Your task to perform on an android device: check android version Image 0: 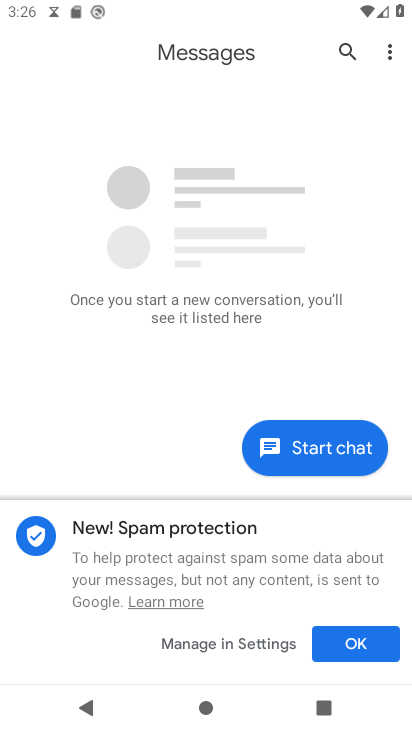
Step 0: press back button
Your task to perform on an android device: check android version Image 1: 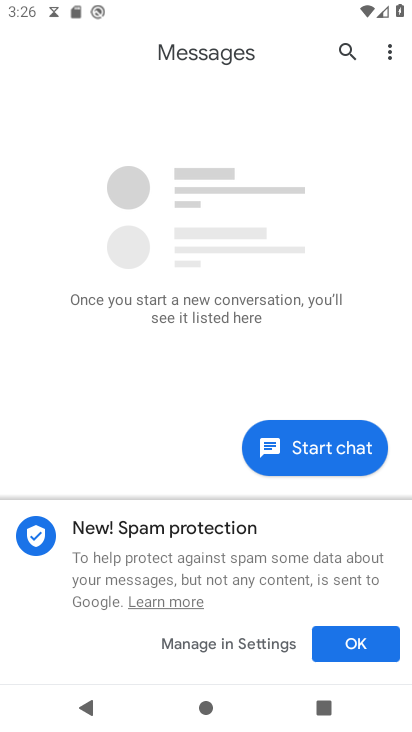
Step 1: press back button
Your task to perform on an android device: check android version Image 2: 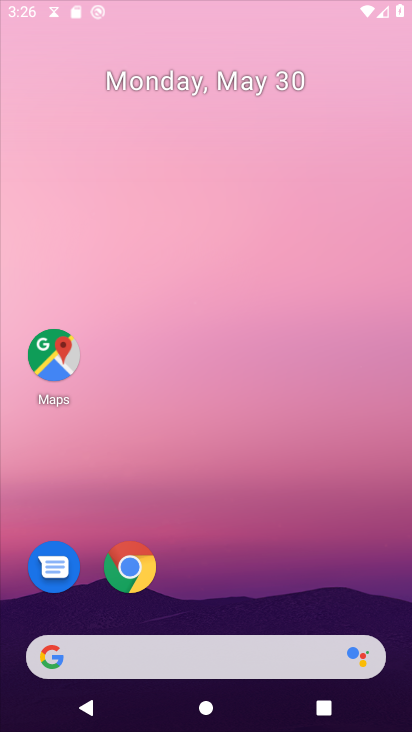
Step 2: press back button
Your task to perform on an android device: check android version Image 3: 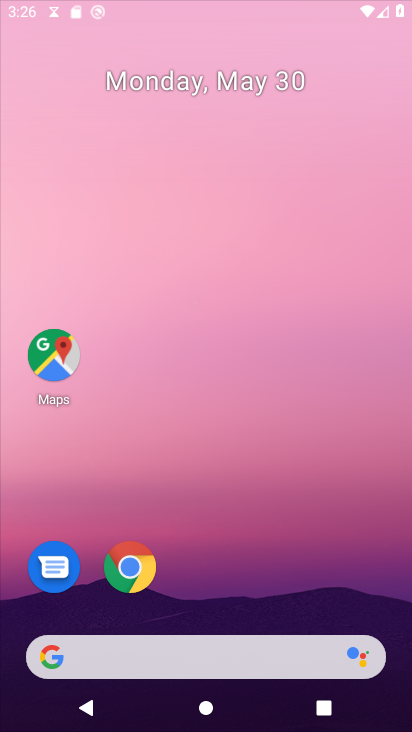
Step 3: press home button
Your task to perform on an android device: check android version Image 4: 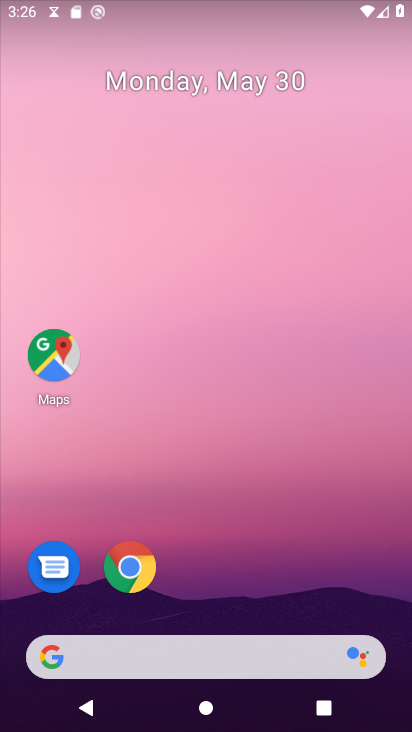
Step 4: press home button
Your task to perform on an android device: check android version Image 5: 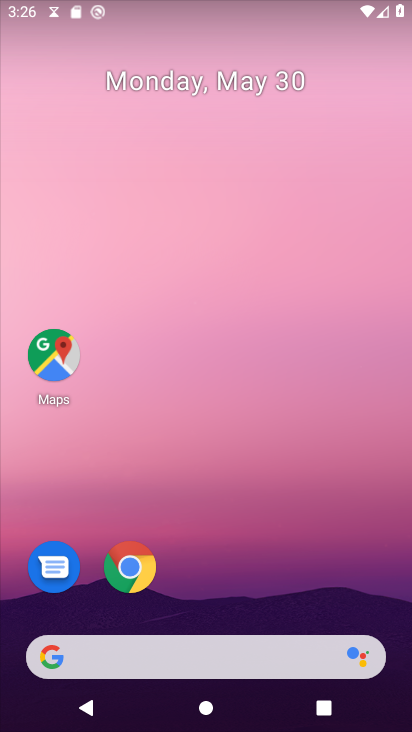
Step 5: click (126, 18)
Your task to perform on an android device: check android version Image 6: 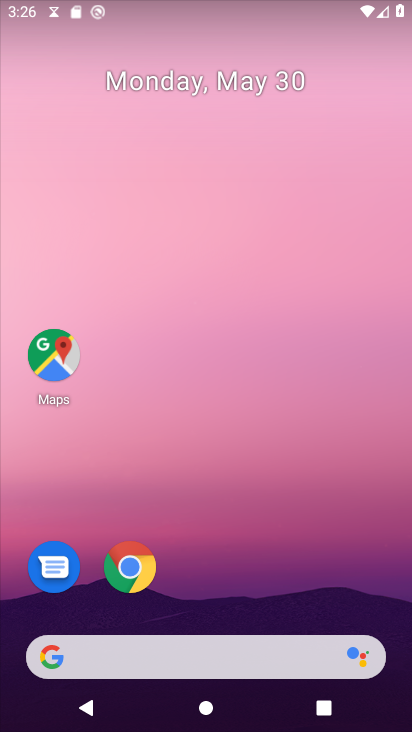
Step 6: drag from (297, 685) to (151, 45)
Your task to perform on an android device: check android version Image 7: 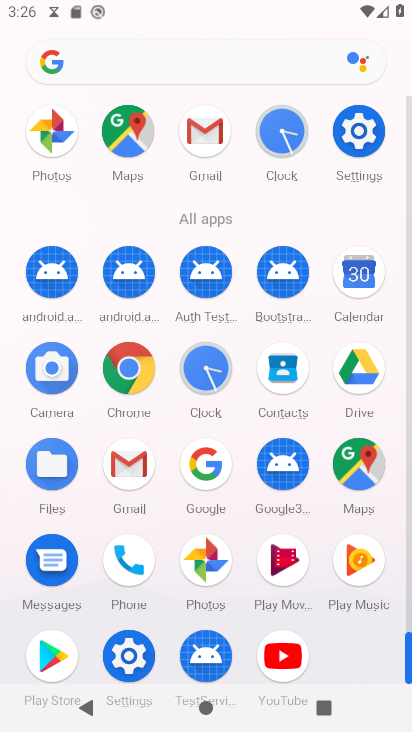
Step 7: click (121, 371)
Your task to perform on an android device: check android version Image 8: 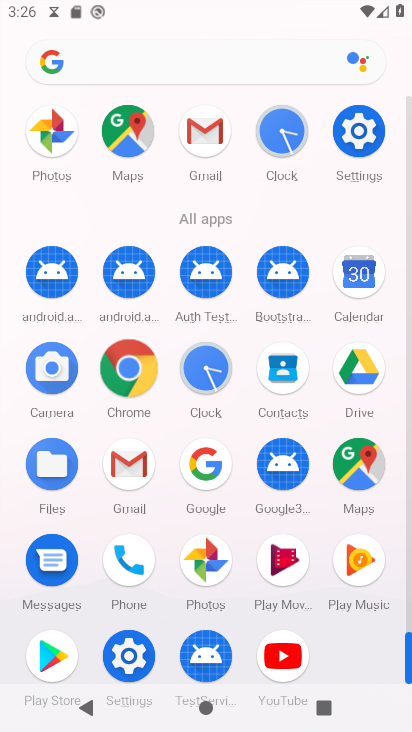
Step 8: click (139, 366)
Your task to perform on an android device: check android version Image 9: 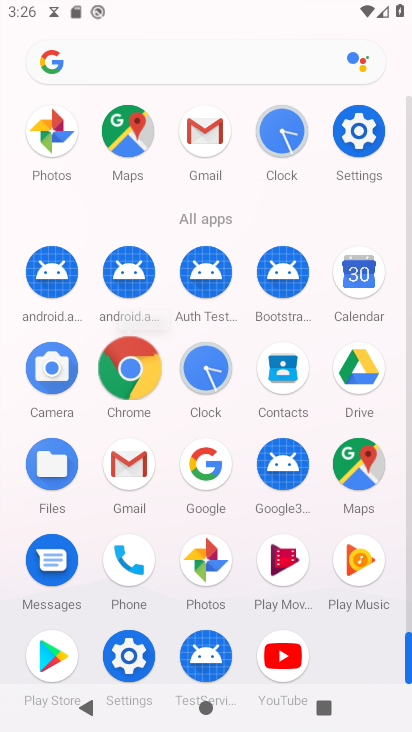
Step 9: click (139, 366)
Your task to perform on an android device: check android version Image 10: 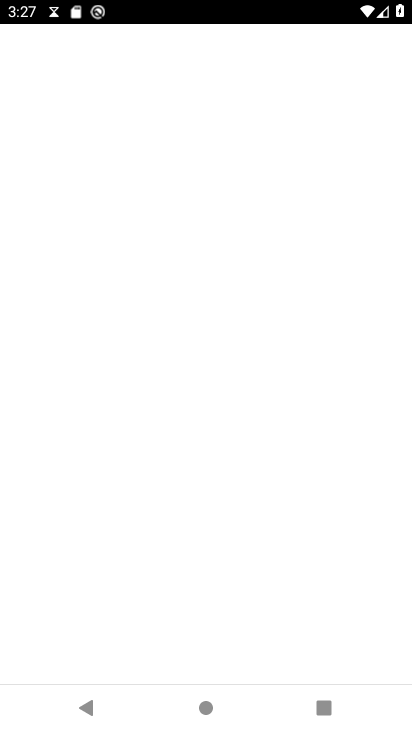
Step 10: drag from (130, 419) to (100, 50)
Your task to perform on an android device: check android version Image 11: 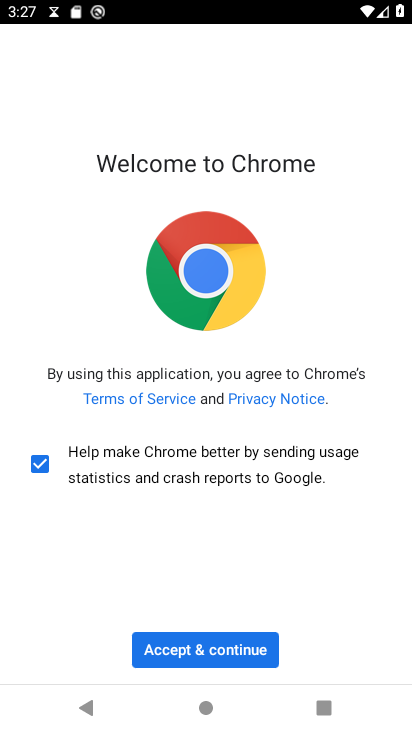
Step 11: drag from (244, 625) to (155, 120)
Your task to perform on an android device: check android version Image 12: 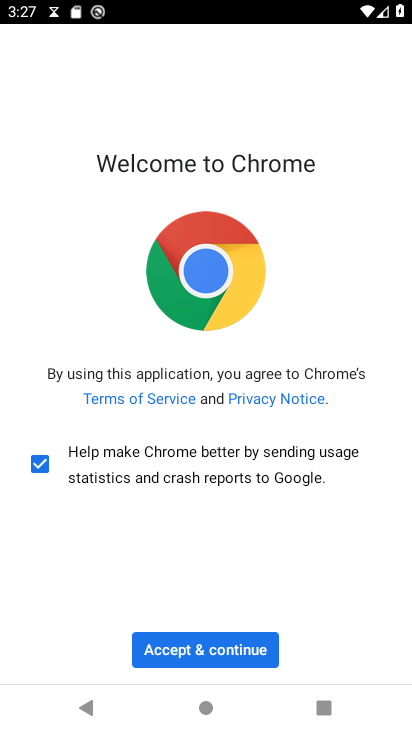
Step 12: click (230, 648)
Your task to perform on an android device: check android version Image 13: 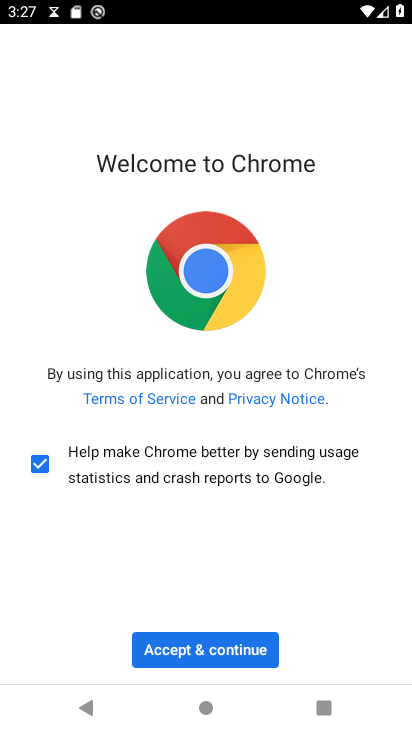
Step 13: click (230, 648)
Your task to perform on an android device: check android version Image 14: 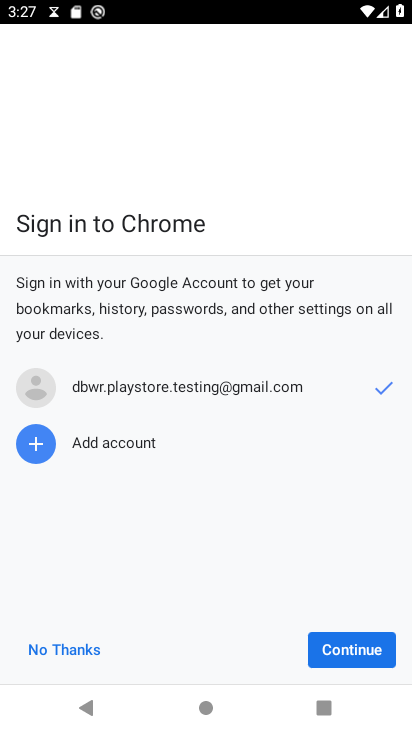
Step 14: click (231, 651)
Your task to perform on an android device: check android version Image 15: 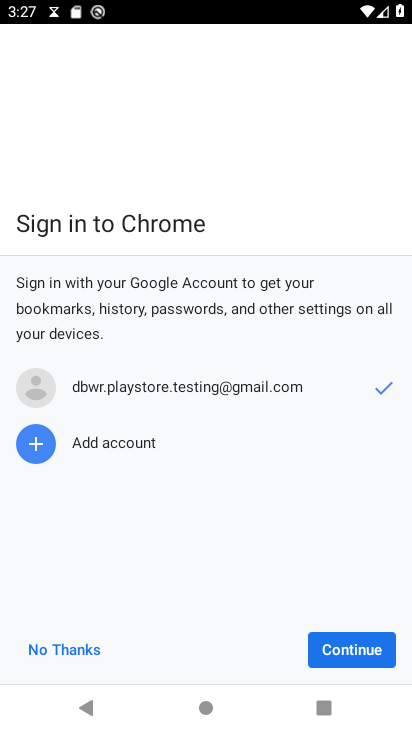
Step 15: click (345, 652)
Your task to perform on an android device: check android version Image 16: 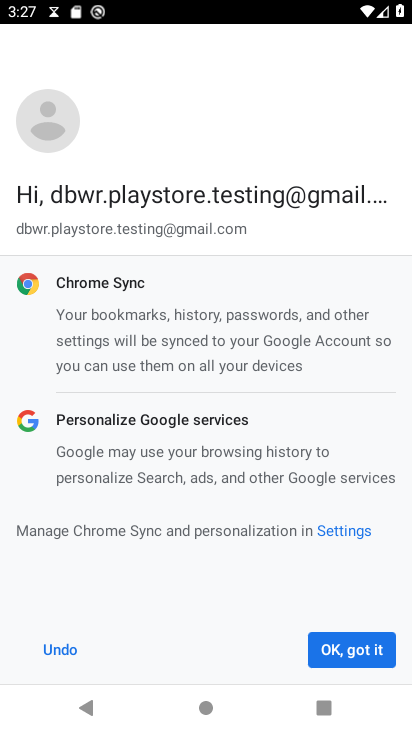
Step 16: click (347, 653)
Your task to perform on an android device: check android version Image 17: 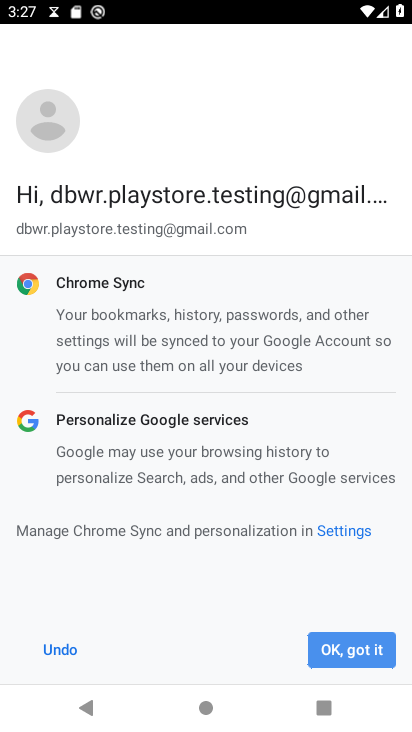
Step 17: click (350, 655)
Your task to perform on an android device: check android version Image 18: 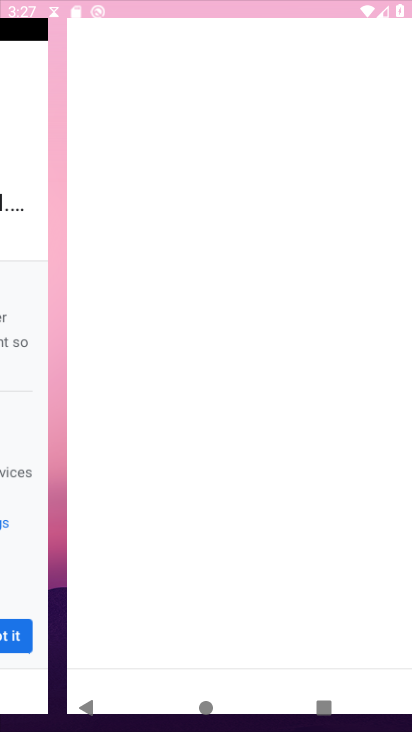
Step 18: click (357, 660)
Your task to perform on an android device: check android version Image 19: 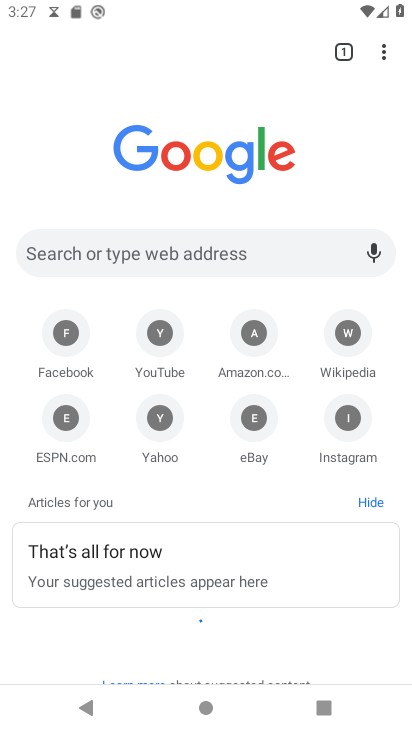
Step 19: drag from (193, 433) to (196, 327)
Your task to perform on an android device: check android version Image 20: 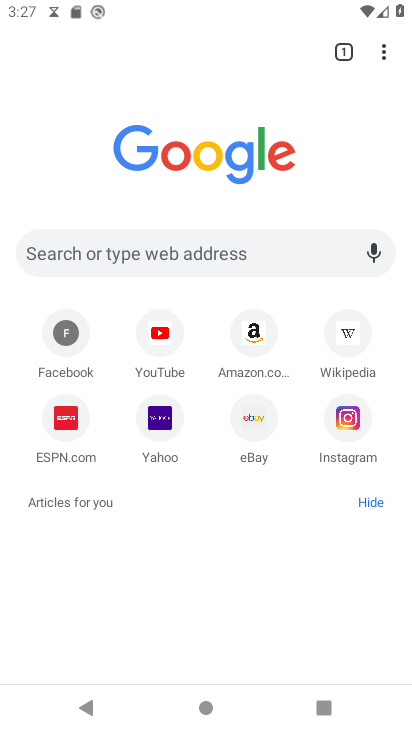
Step 20: press home button
Your task to perform on an android device: check android version Image 21: 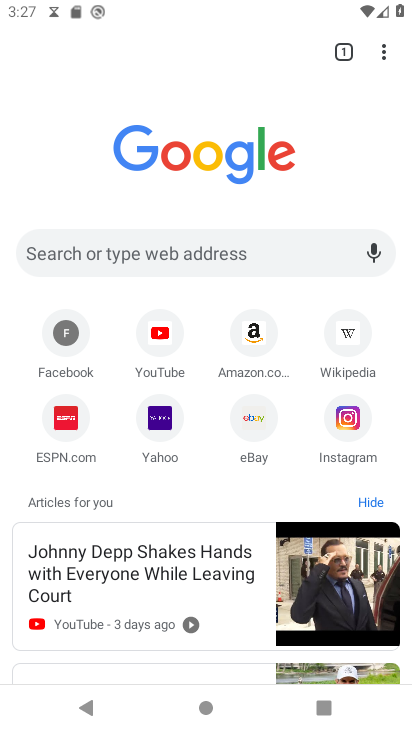
Step 21: press home button
Your task to perform on an android device: check android version Image 22: 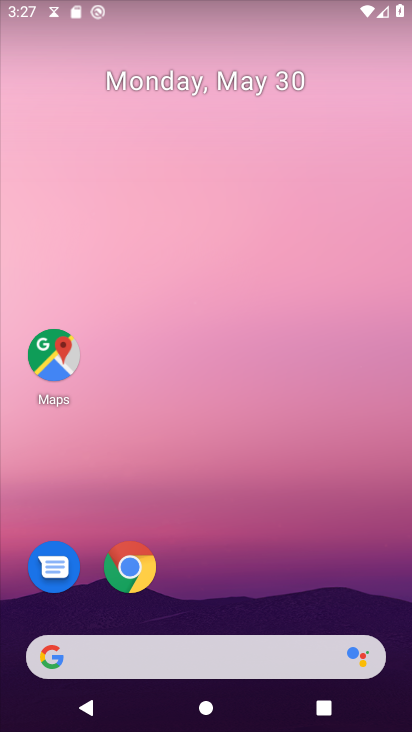
Step 22: press home button
Your task to perform on an android device: check android version Image 23: 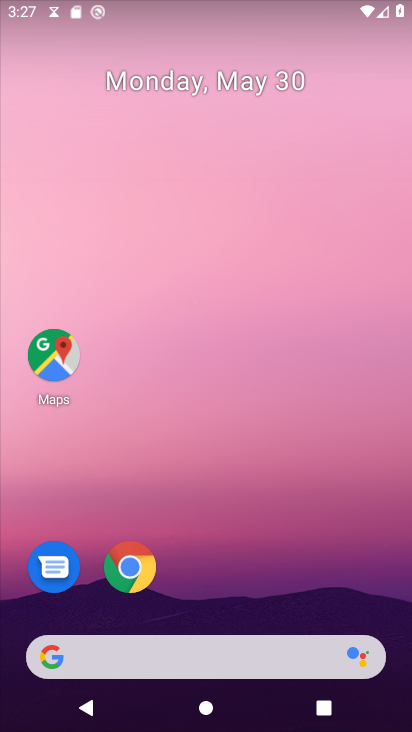
Step 23: press back button
Your task to perform on an android device: check android version Image 24: 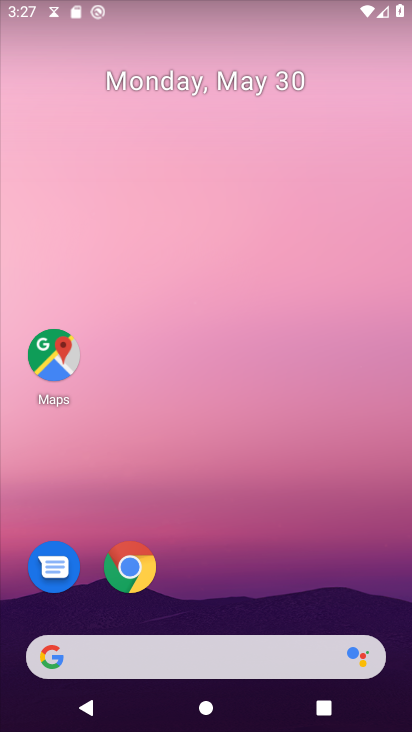
Step 24: drag from (250, 560) to (98, 0)
Your task to perform on an android device: check android version Image 25: 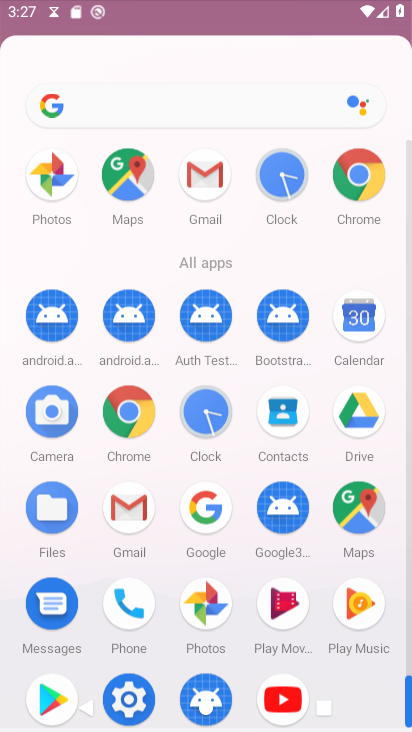
Step 25: drag from (231, 400) to (112, 40)
Your task to perform on an android device: check android version Image 26: 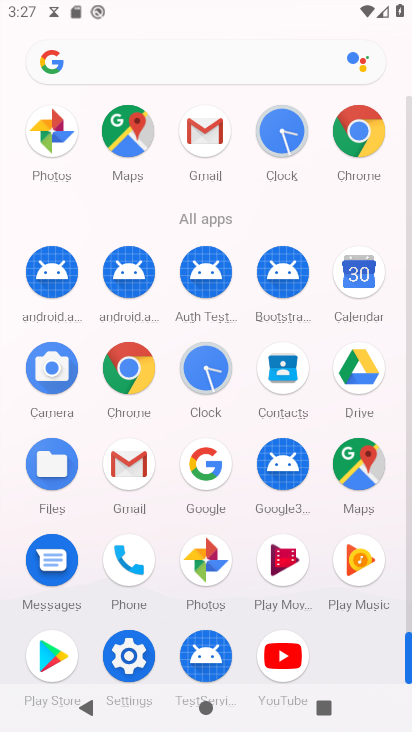
Step 26: click (130, 652)
Your task to perform on an android device: check android version Image 27: 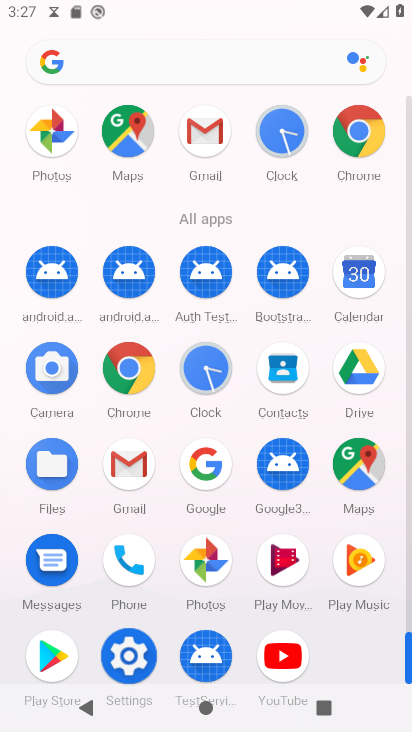
Step 27: click (130, 652)
Your task to perform on an android device: check android version Image 28: 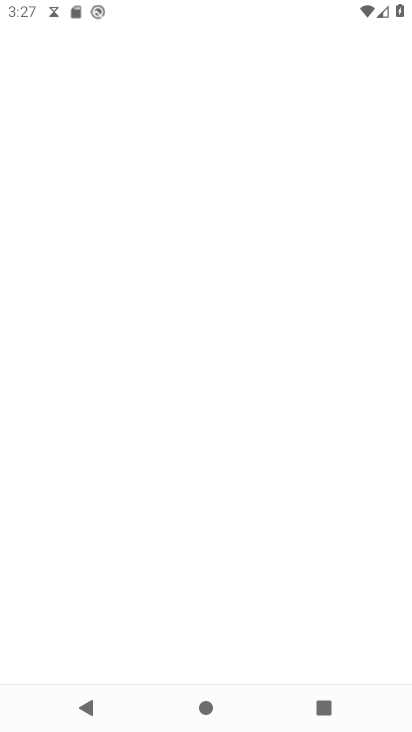
Step 28: click (116, 654)
Your task to perform on an android device: check android version Image 29: 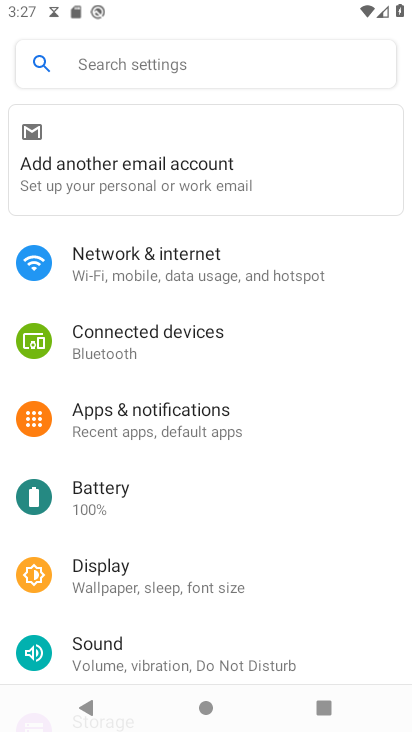
Step 29: drag from (115, 554) to (61, 77)
Your task to perform on an android device: check android version Image 30: 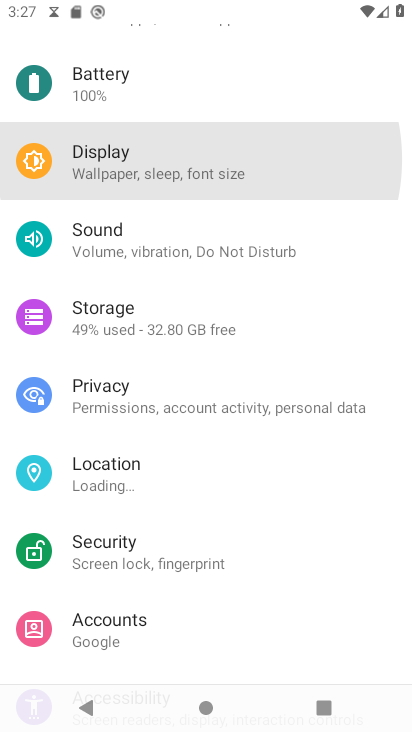
Step 30: drag from (154, 474) to (202, 141)
Your task to perform on an android device: check android version Image 31: 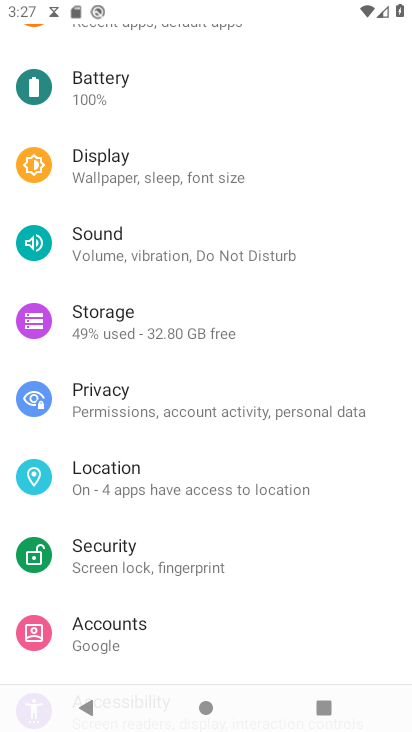
Step 31: drag from (210, 304) to (191, 38)
Your task to perform on an android device: check android version Image 32: 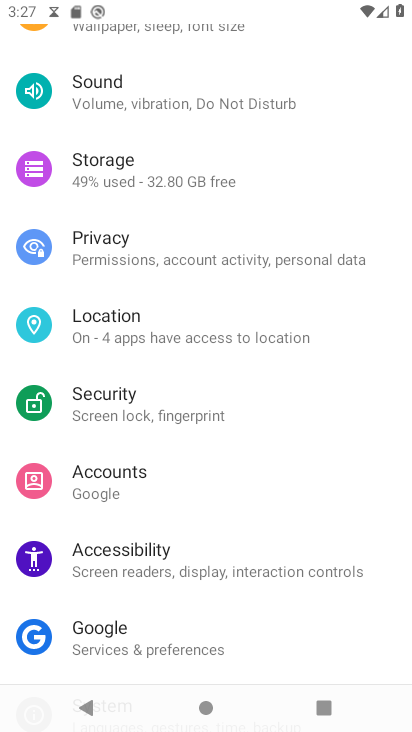
Step 32: drag from (194, 534) to (165, 116)
Your task to perform on an android device: check android version Image 33: 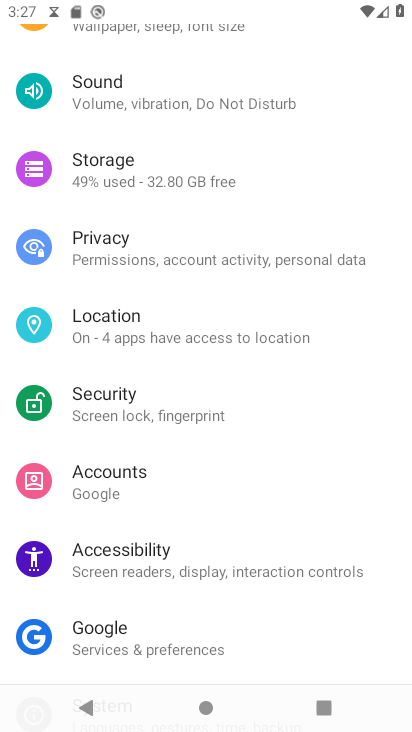
Step 33: drag from (158, 518) to (68, 8)
Your task to perform on an android device: check android version Image 34: 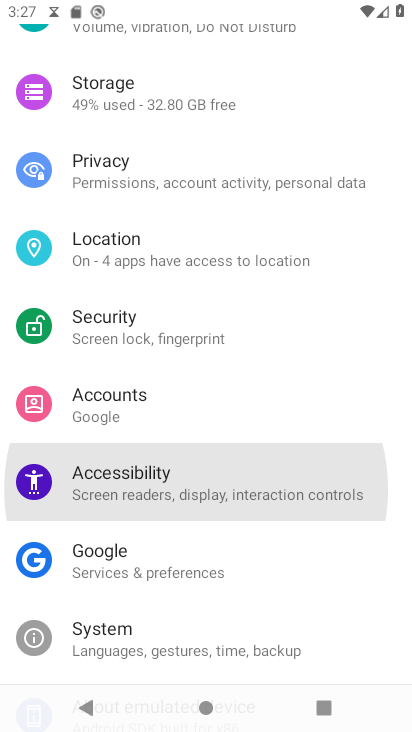
Step 34: drag from (80, 339) to (93, 26)
Your task to perform on an android device: check android version Image 35: 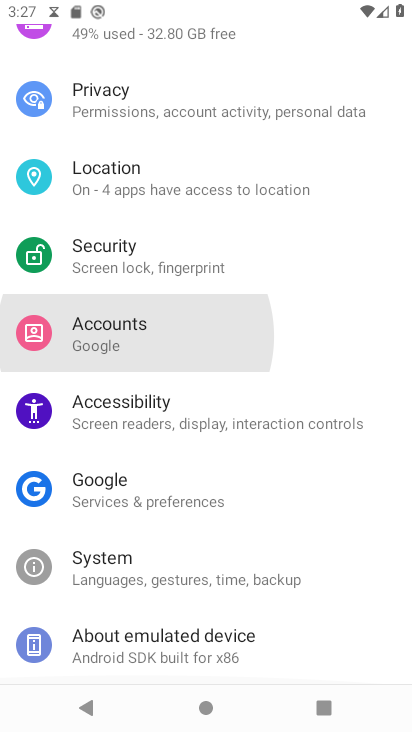
Step 35: drag from (198, 477) to (189, 135)
Your task to perform on an android device: check android version Image 36: 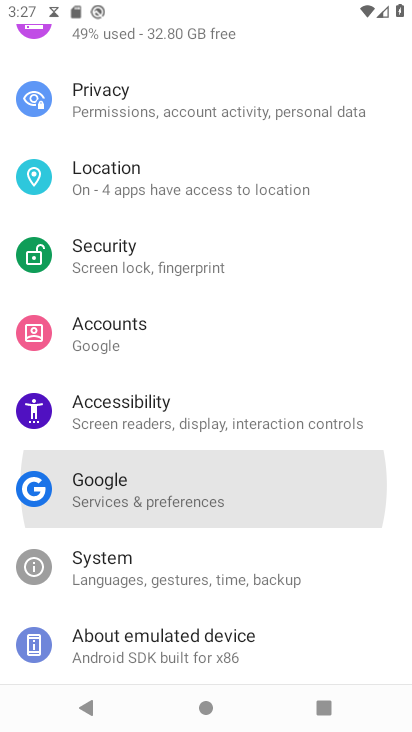
Step 36: drag from (186, 301) to (186, 179)
Your task to perform on an android device: check android version Image 37: 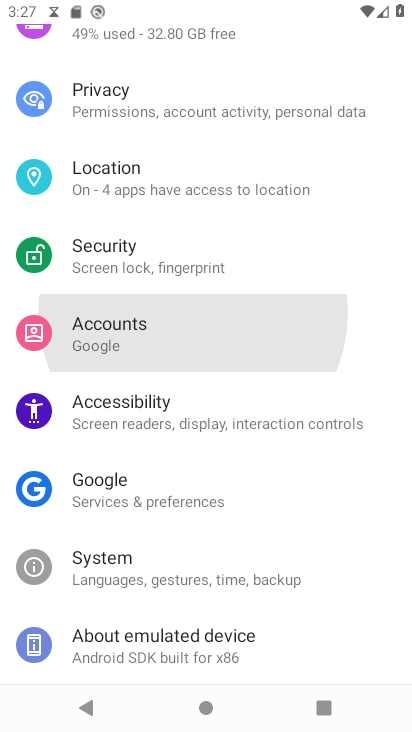
Step 37: click (173, 97)
Your task to perform on an android device: check android version Image 38: 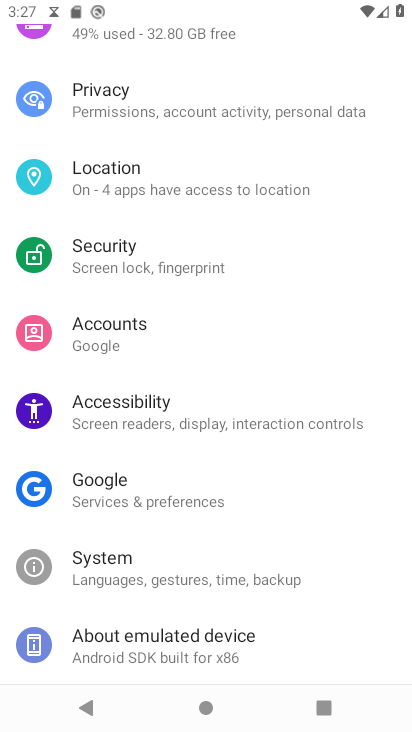
Step 38: click (163, 641)
Your task to perform on an android device: check android version Image 39: 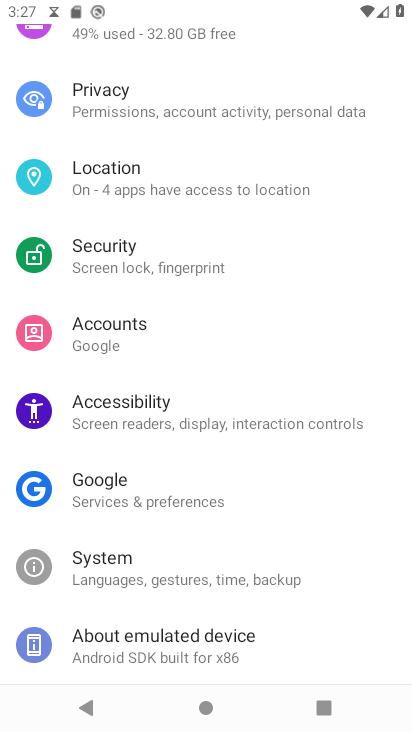
Step 39: click (163, 641)
Your task to perform on an android device: check android version Image 40: 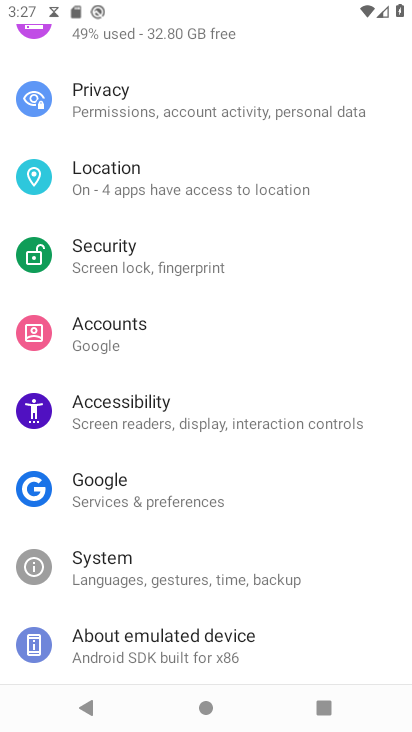
Step 40: click (163, 641)
Your task to perform on an android device: check android version Image 41: 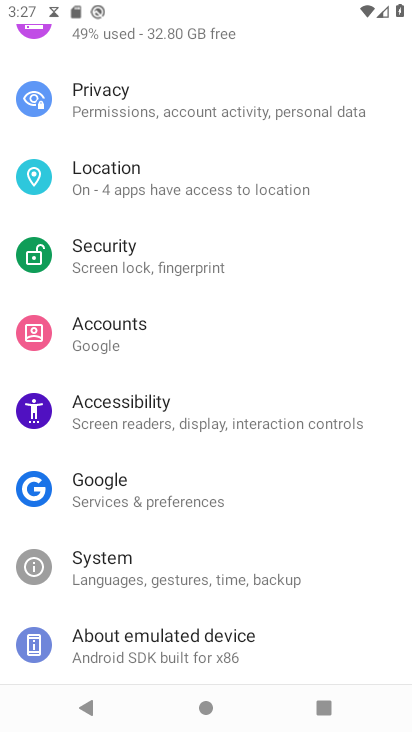
Step 41: click (163, 643)
Your task to perform on an android device: check android version Image 42: 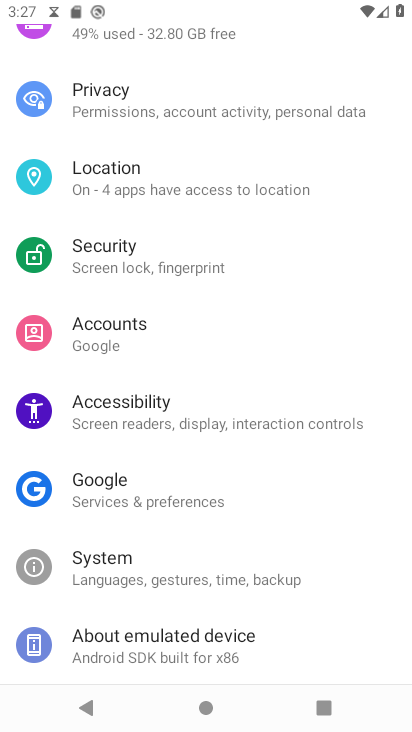
Step 42: click (163, 643)
Your task to perform on an android device: check android version Image 43: 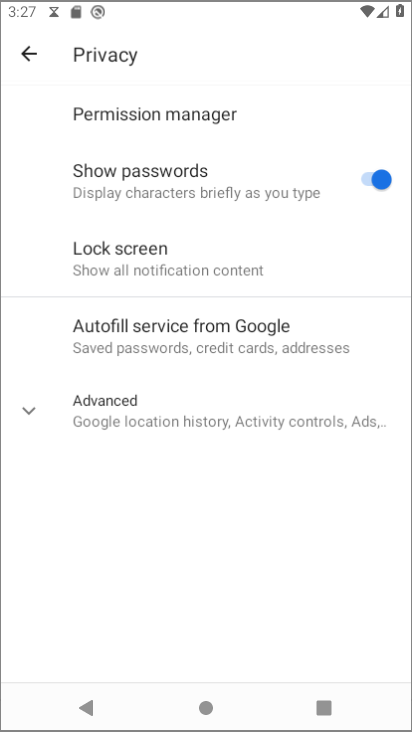
Step 43: click (163, 648)
Your task to perform on an android device: check android version Image 44: 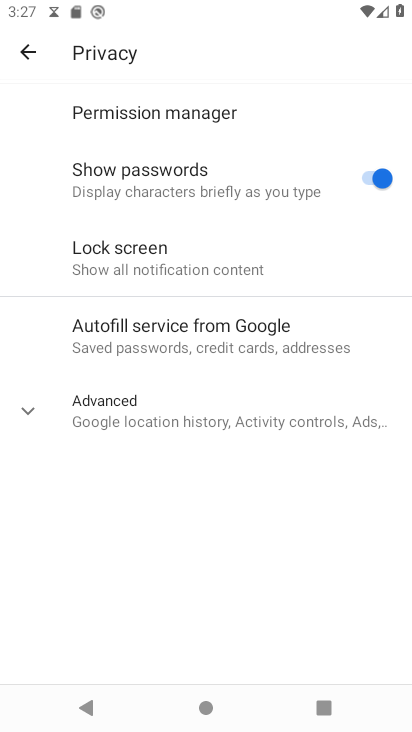
Step 44: click (163, 648)
Your task to perform on an android device: check android version Image 45: 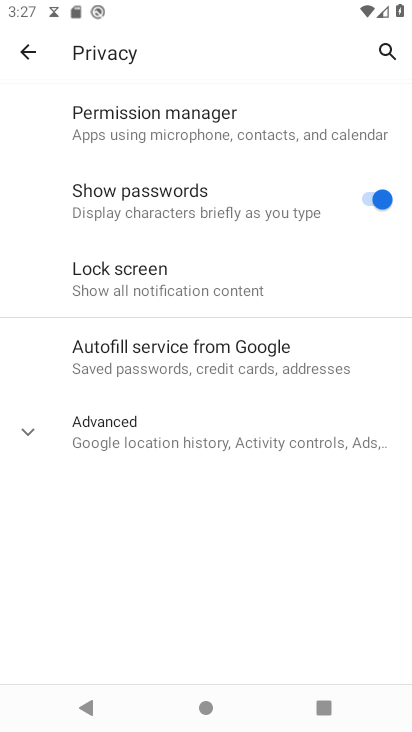
Step 45: task complete